Your task to perform on an android device: find photos in the google photos app Image 0: 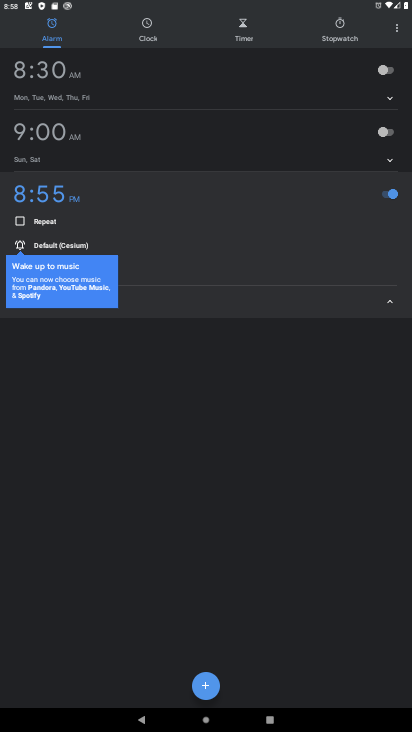
Step 0: press home button
Your task to perform on an android device: find photos in the google photos app Image 1: 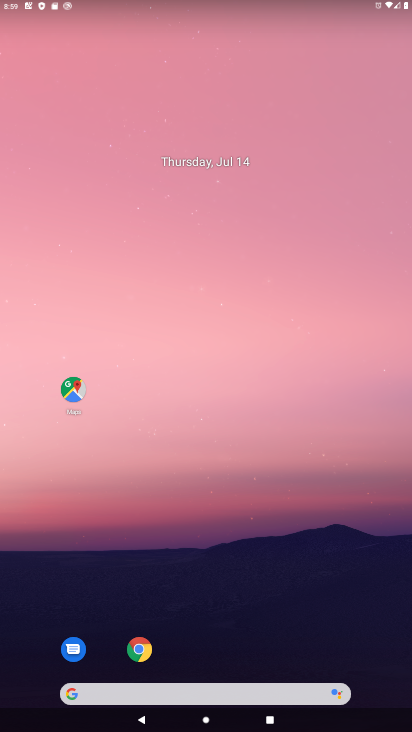
Step 1: drag from (140, 590) to (235, 129)
Your task to perform on an android device: find photos in the google photos app Image 2: 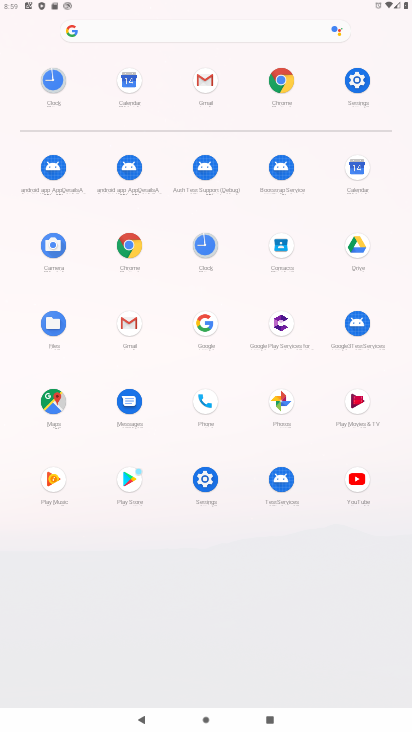
Step 2: click (278, 401)
Your task to perform on an android device: find photos in the google photos app Image 3: 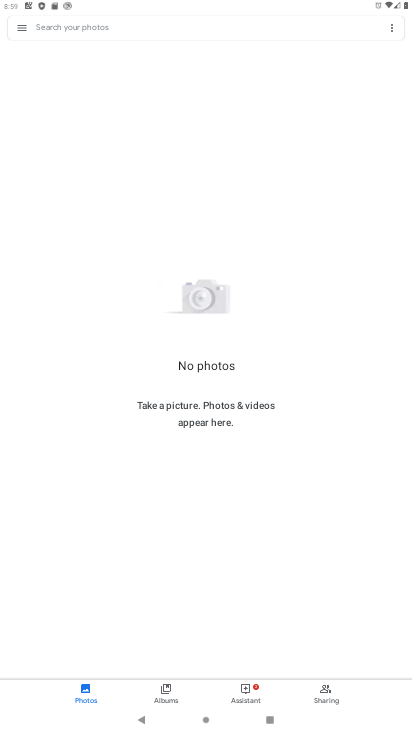
Step 3: task complete